Your task to perform on an android device: open wifi settings Image 0: 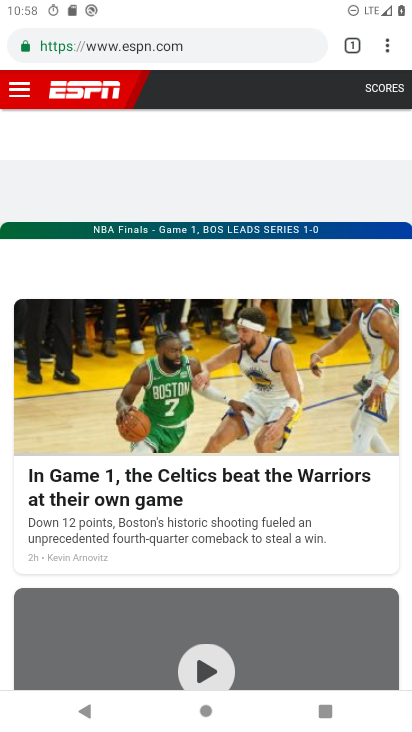
Step 0: press home button
Your task to perform on an android device: open wifi settings Image 1: 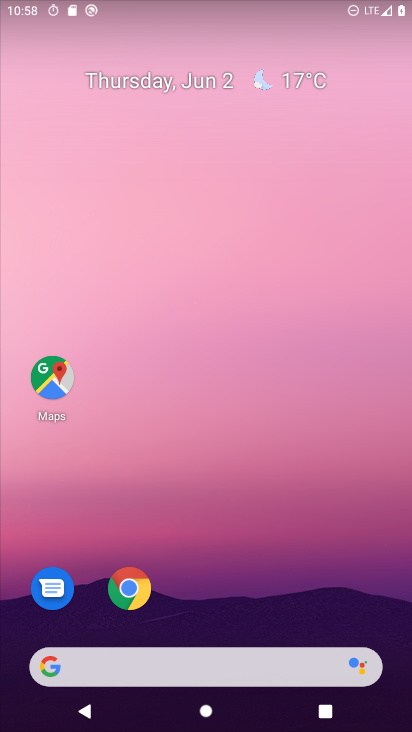
Step 1: drag from (185, 627) to (284, 209)
Your task to perform on an android device: open wifi settings Image 2: 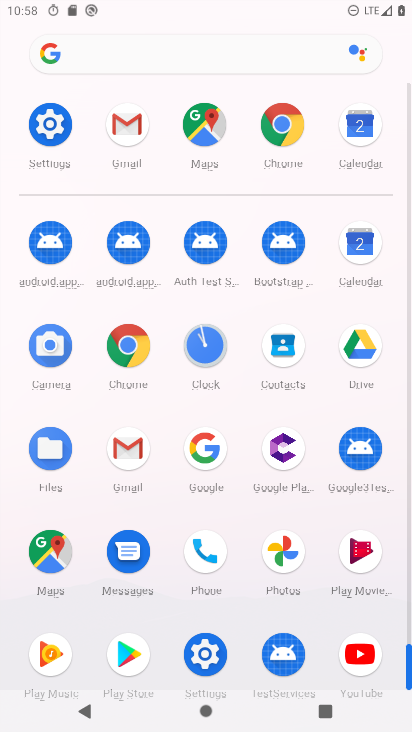
Step 2: click (57, 127)
Your task to perform on an android device: open wifi settings Image 3: 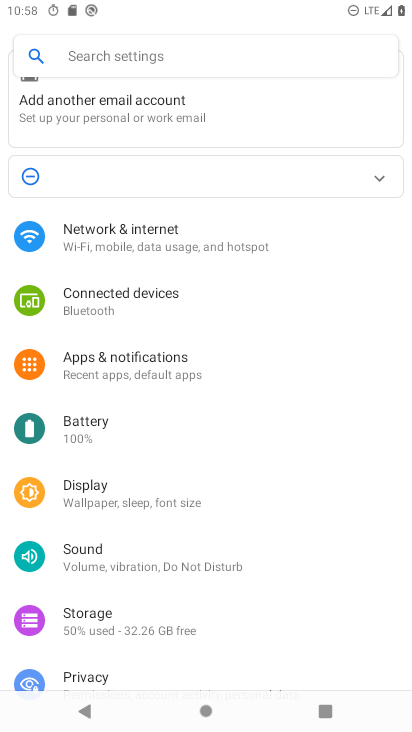
Step 3: click (195, 245)
Your task to perform on an android device: open wifi settings Image 4: 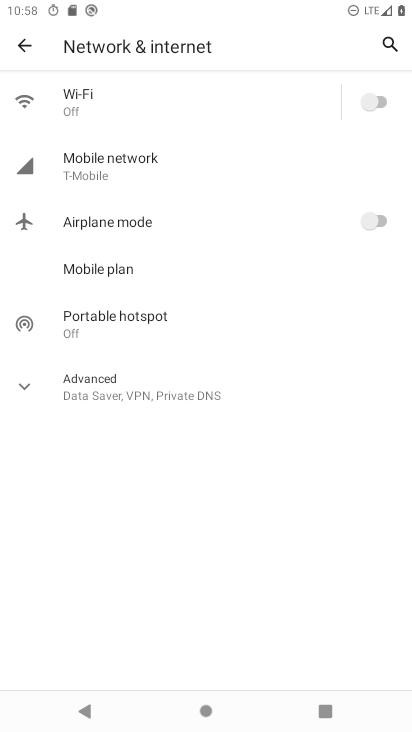
Step 4: click (163, 105)
Your task to perform on an android device: open wifi settings Image 5: 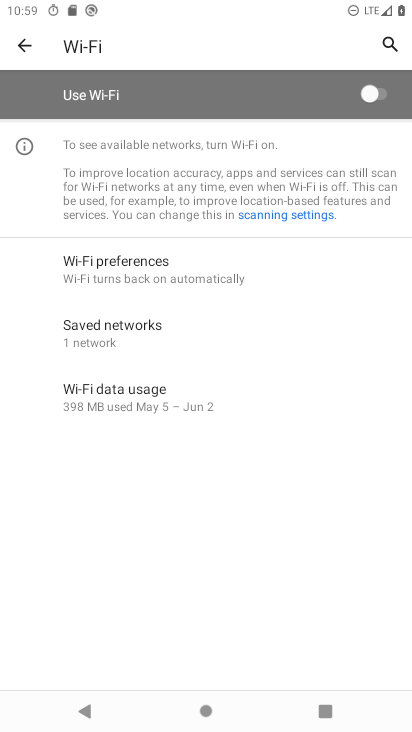
Step 5: task complete